Your task to perform on an android device: Go to internet settings Image 0: 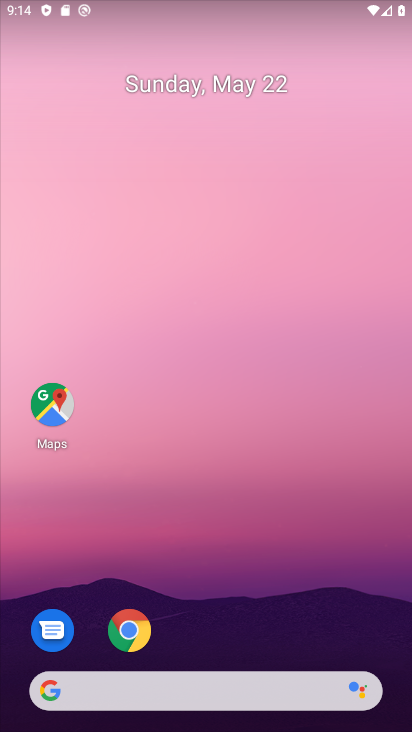
Step 0: drag from (380, 708) to (407, 458)
Your task to perform on an android device: Go to internet settings Image 1: 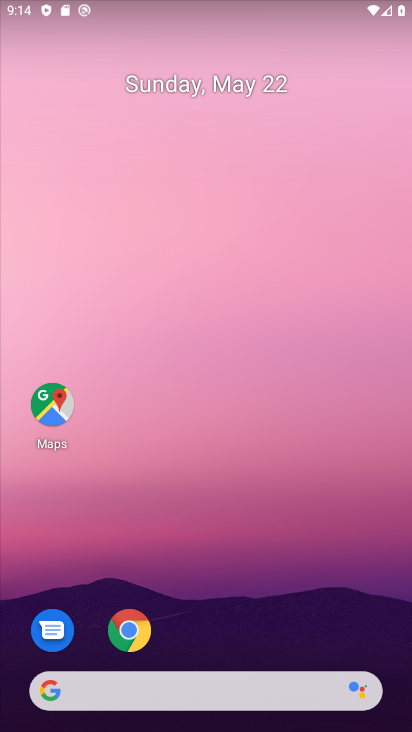
Step 1: drag from (391, 705) to (389, 99)
Your task to perform on an android device: Go to internet settings Image 2: 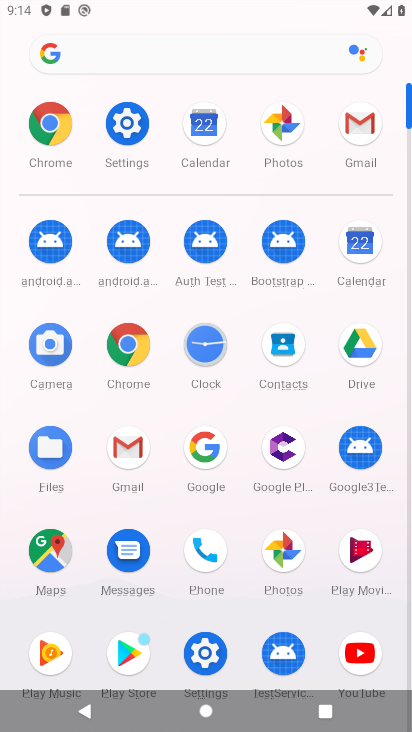
Step 2: click (127, 115)
Your task to perform on an android device: Go to internet settings Image 3: 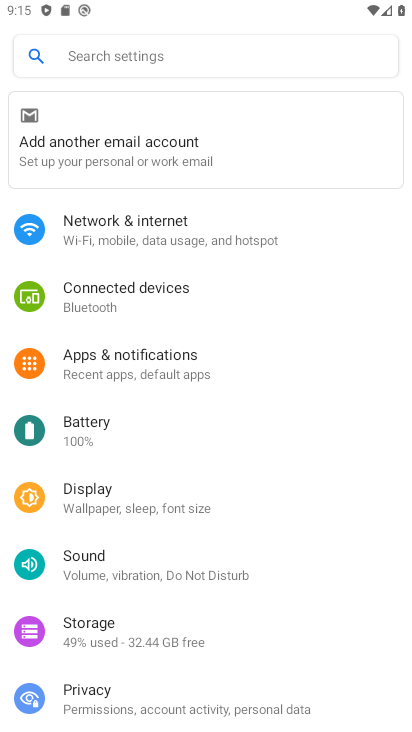
Step 3: drag from (314, 642) to (330, 281)
Your task to perform on an android device: Go to internet settings Image 4: 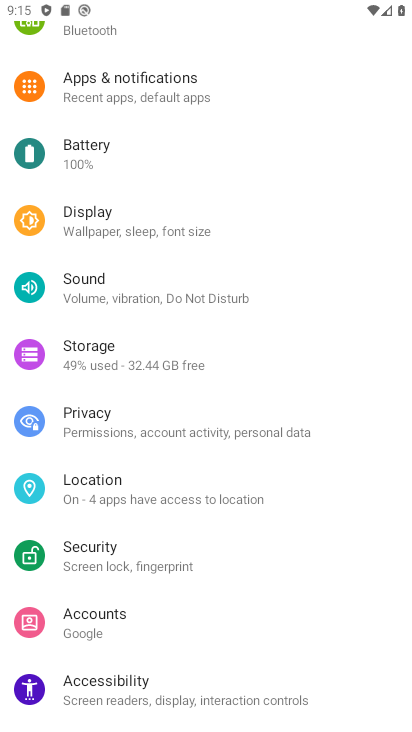
Step 4: drag from (326, 643) to (330, 347)
Your task to perform on an android device: Go to internet settings Image 5: 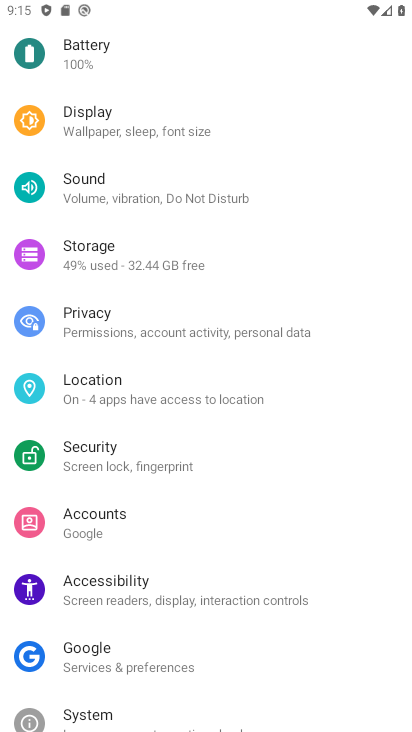
Step 5: drag from (338, 177) to (330, 543)
Your task to perform on an android device: Go to internet settings Image 6: 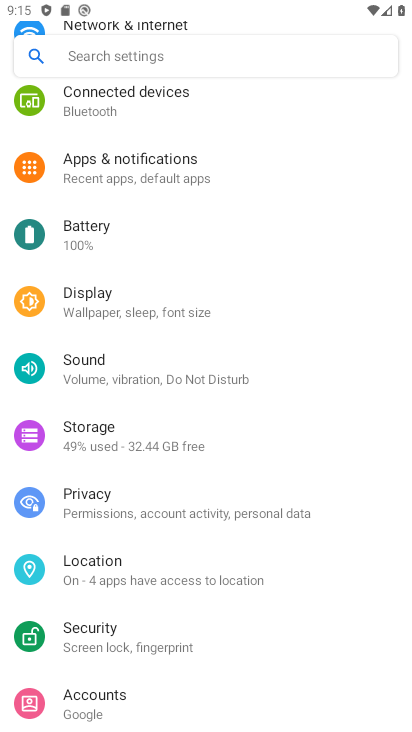
Step 6: drag from (373, 171) to (364, 527)
Your task to perform on an android device: Go to internet settings Image 7: 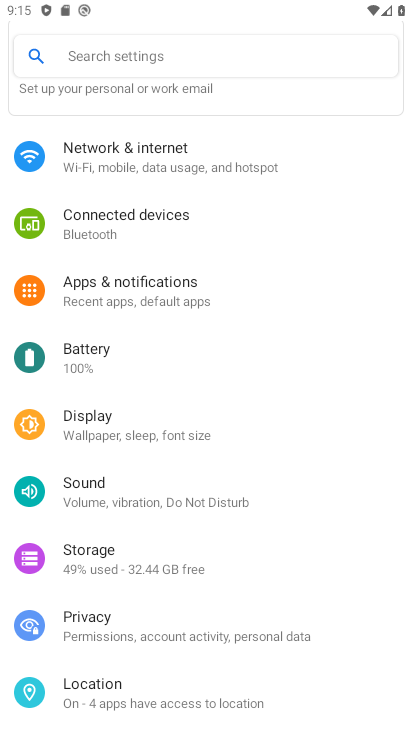
Step 7: click (150, 157)
Your task to perform on an android device: Go to internet settings Image 8: 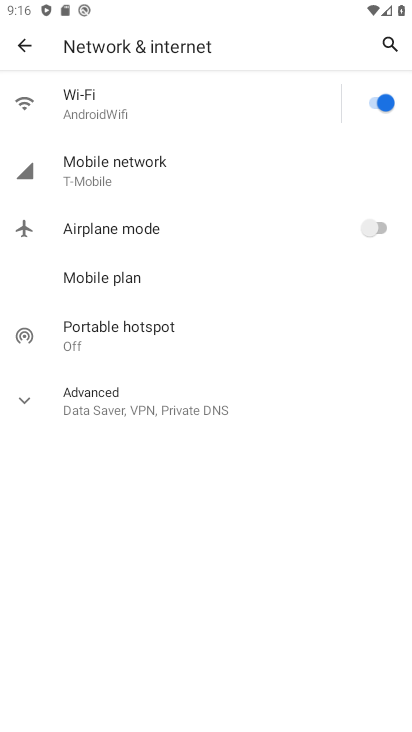
Step 8: click (101, 162)
Your task to perform on an android device: Go to internet settings Image 9: 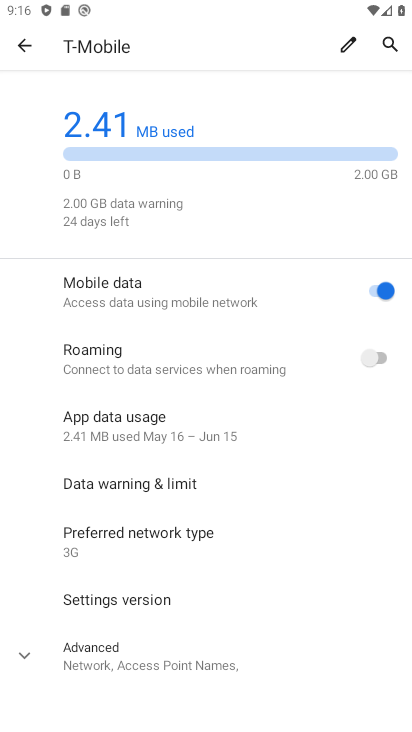
Step 9: task complete